Your task to perform on an android device: Open Google Maps and go to "Timeline" Image 0: 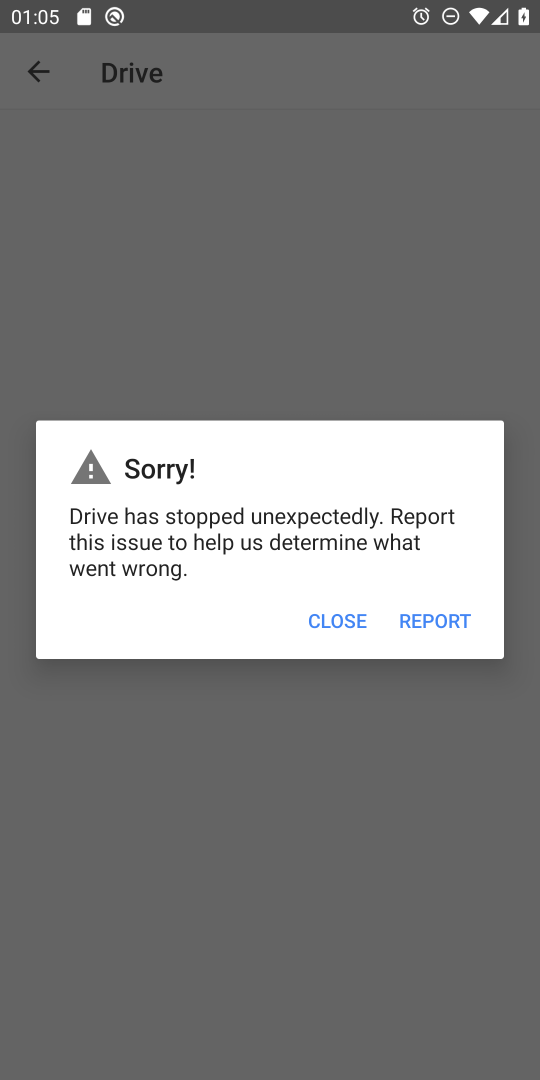
Step 0: press home button
Your task to perform on an android device: Open Google Maps and go to "Timeline" Image 1: 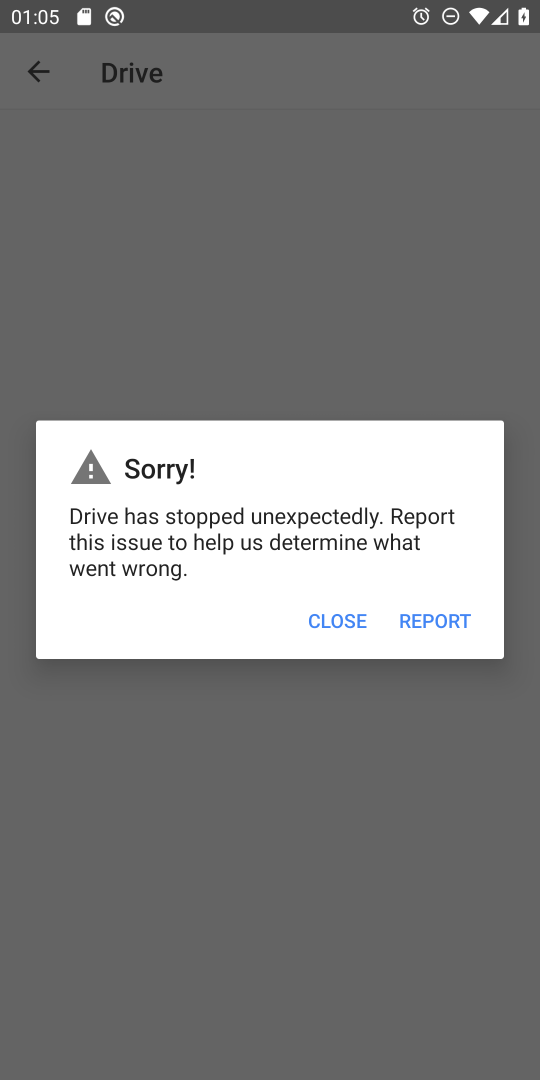
Step 1: press home button
Your task to perform on an android device: Open Google Maps and go to "Timeline" Image 2: 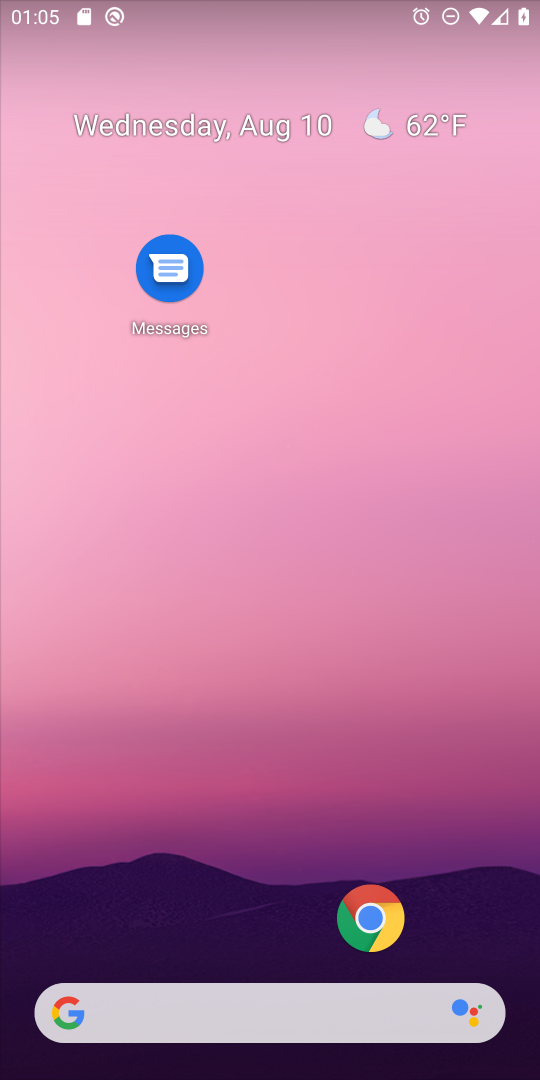
Step 2: drag from (453, 913) to (429, 142)
Your task to perform on an android device: Open Google Maps and go to "Timeline" Image 3: 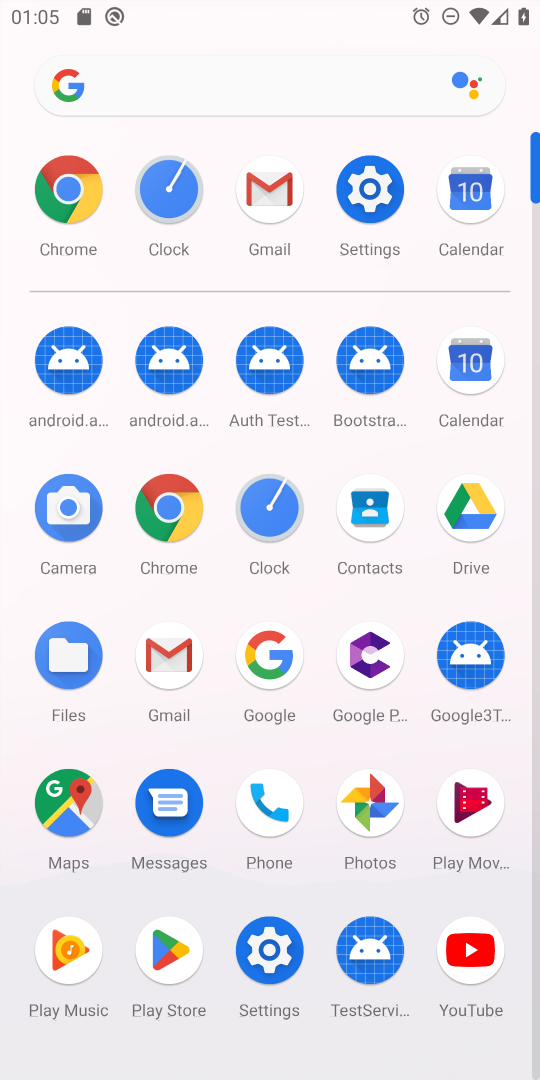
Step 3: click (59, 796)
Your task to perform on an android device: Open Google Maps and go to "Timeline" Image 4: 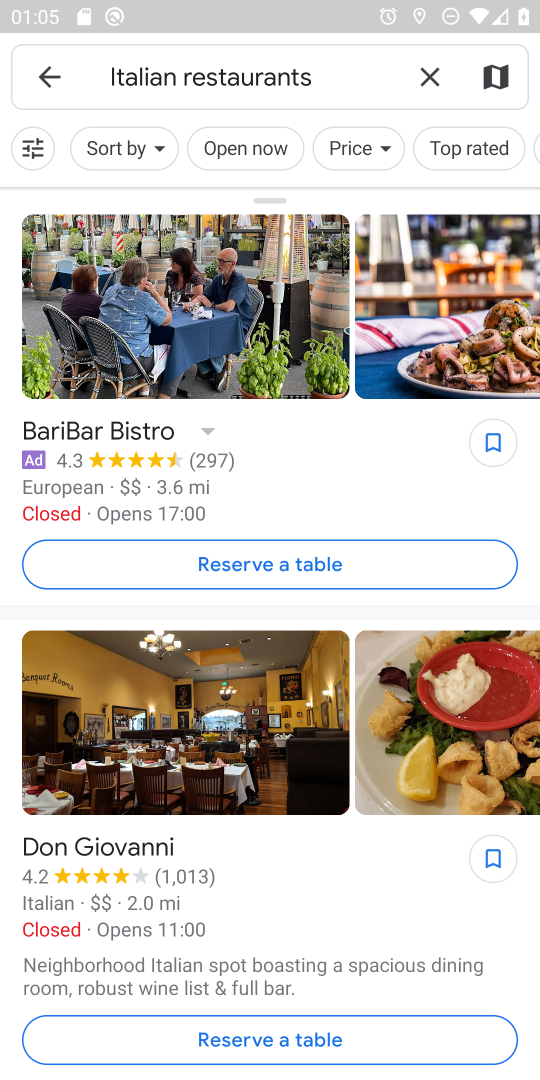
Step 4: click (51, 66)
Your task to perform on an android device: Open Google Maps and go to "Timeline" Image 5: 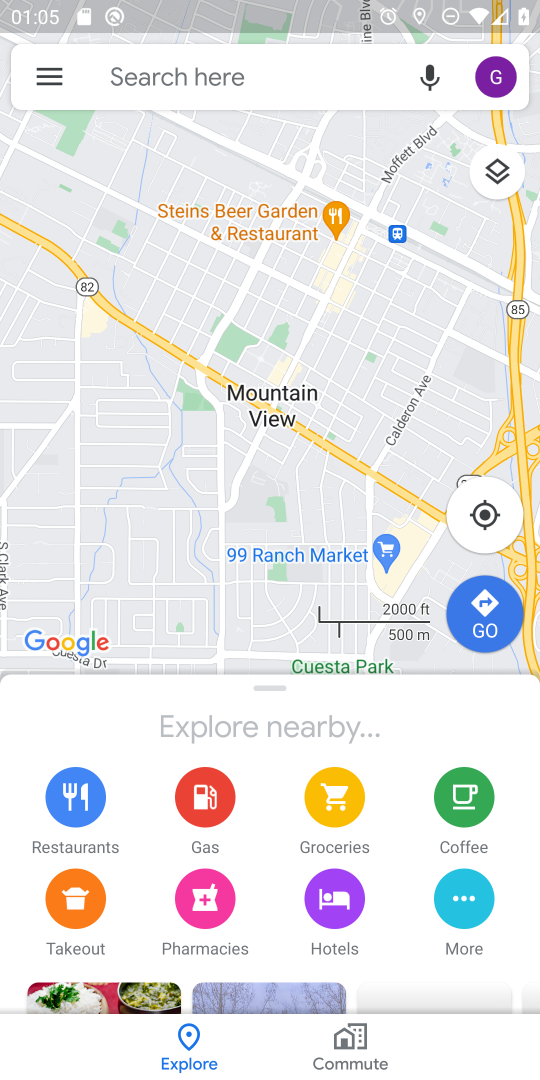
Step 5: click (60, 82)
Your task to perform on an android device: Open Google Maps and go to "Timeline" Image 6: 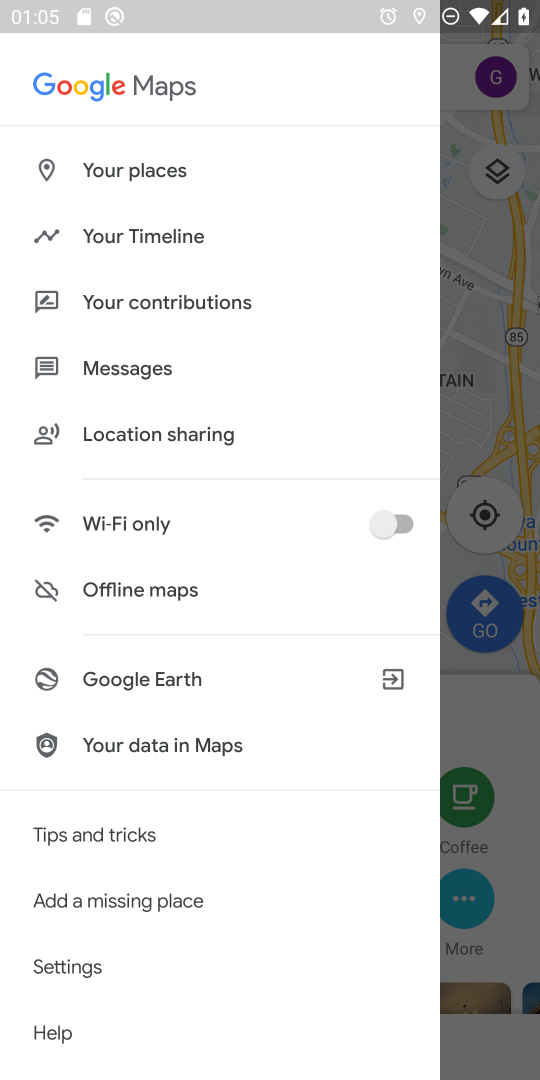
Step 6: click (134, 248)
Your task to perform on an android device: Open Google Maps and go to "Timeline" Image 7: 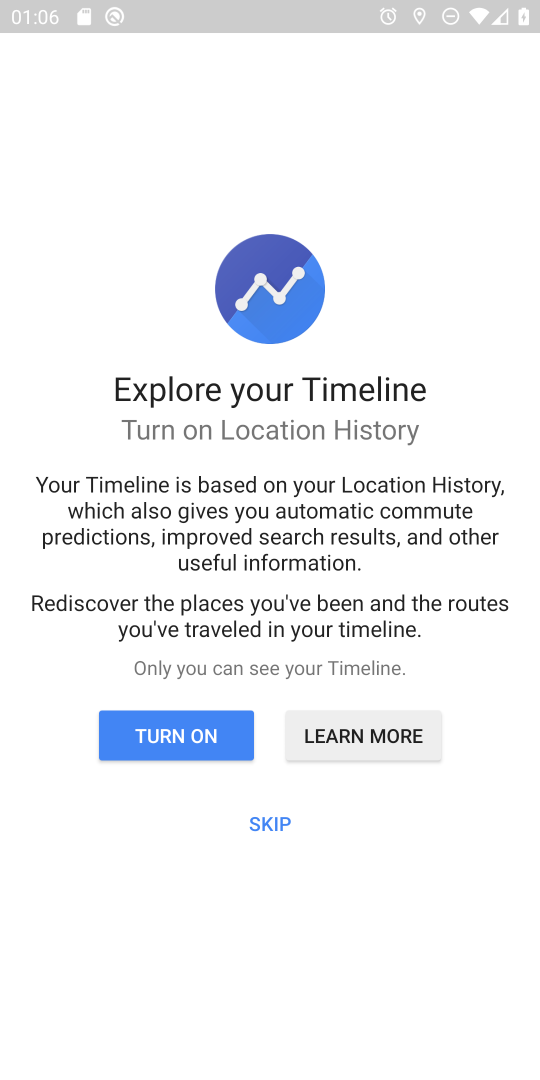
Step 7: click (208, 741)
Your task to perform on an android device: Open Google Maps and go to "Timeline" Image 8: 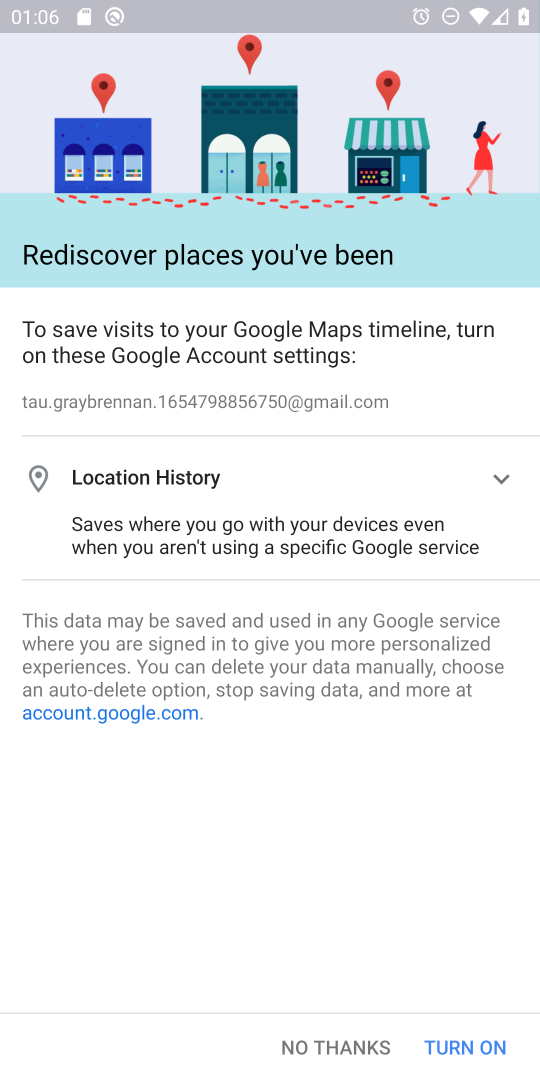
Step 8: click (368, 1042)
Your task to perform on an android device: Open Google Maps and go to "Timeline" Image 9: 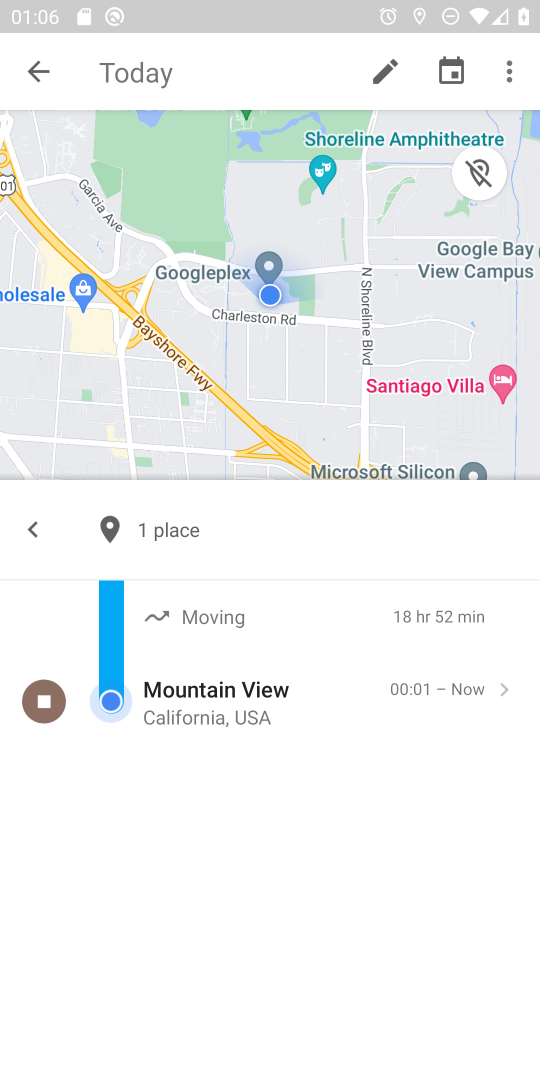
Step 9: task complete